Your task to perform on an android device: Open privacy settings Image 0: 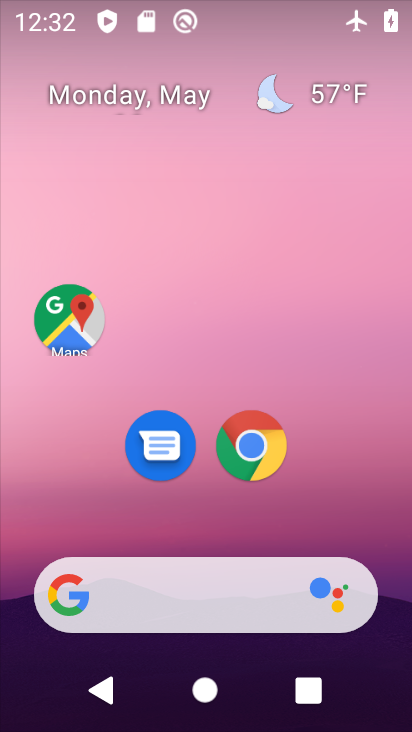
Step 0: drag from (402, 613) to (316, 106)
Your task to perform on an android device: Open privacy settings Image 1: 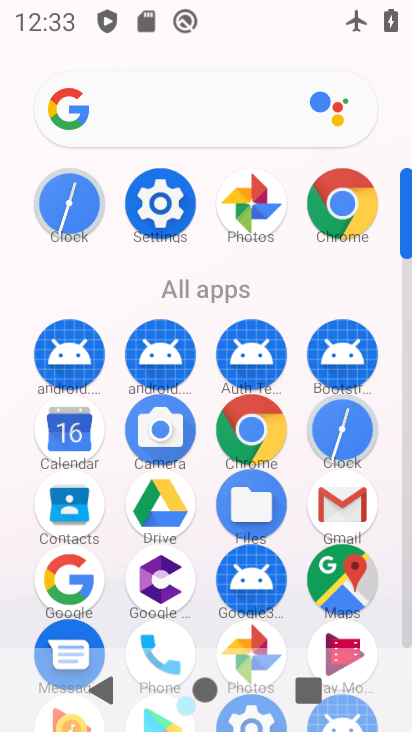
Step 1: click (164, 200)
Your task to perform on an android device: Open privacy settings Image 2: 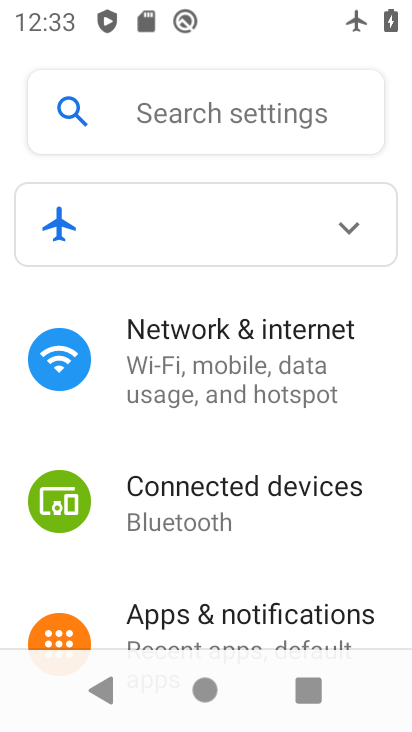
Step 2: drag from (139, 518) to (123, 89)
Your task to perform on an android device: Open privacy settings Image 3: 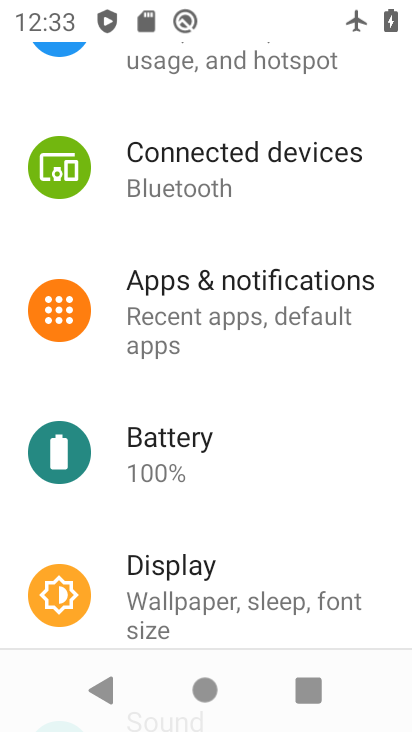
Step 3: drag from (238, 579) to (220, 70)
Your task to perform on an android device: Open privacy settings Image 4: 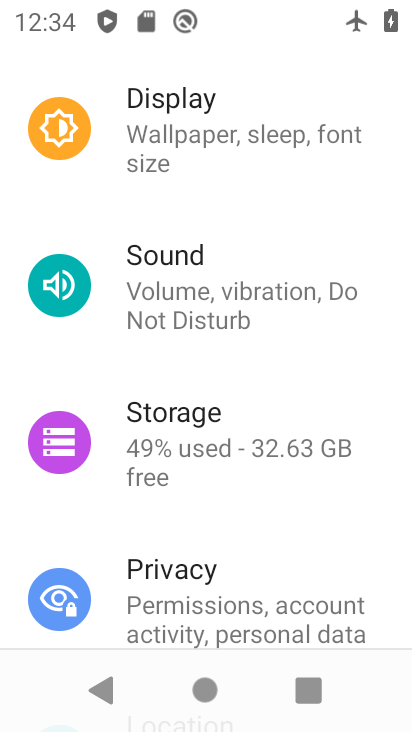
Step 4: click (207, 588)
Your task to perform on an android device: Open privacy settings Image 5: 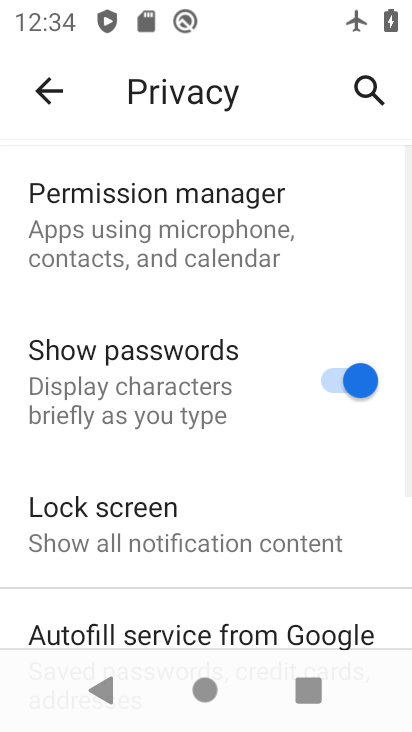
Step 5: task complete